Your task to perform on an android device: see sites visited before in the chrome app Image 0: 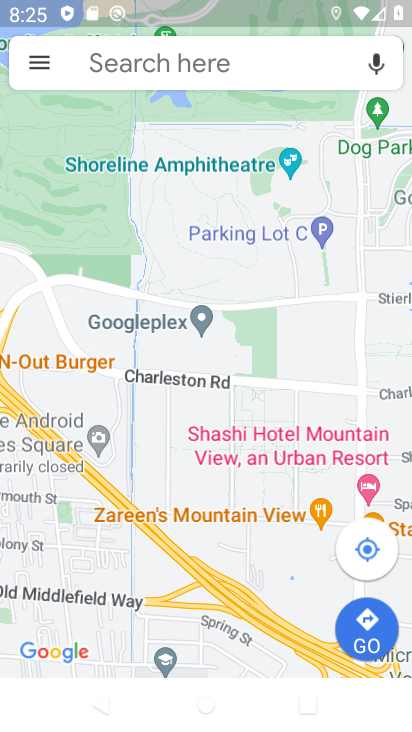
Step 0: press home button
Your task to perform on an android device: see sites visited before in the chrome app Image 1: 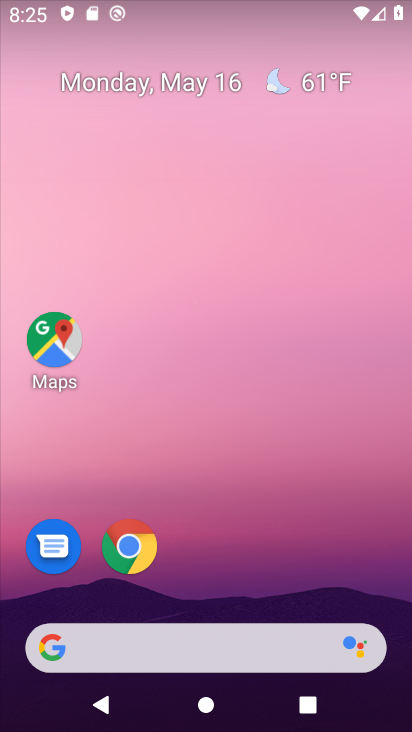
Step 1: click (147, 549)
Your task to perform on an android device: see sites visited before in the chrome app Image 2: 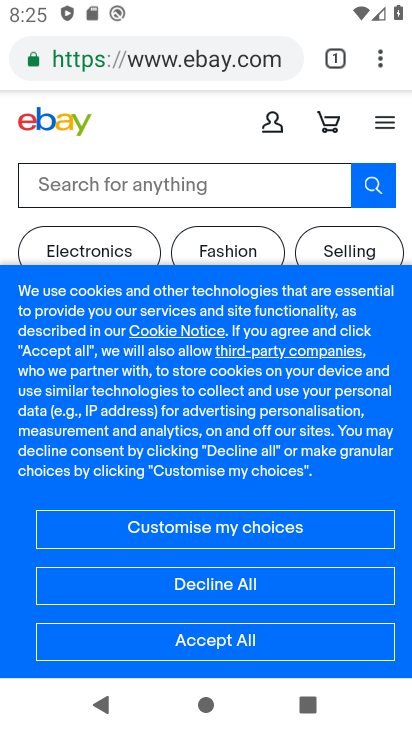
Step 2: click (387, 59)
Your task to perform on an android device: see sites visited before in the chrome app Image 3: 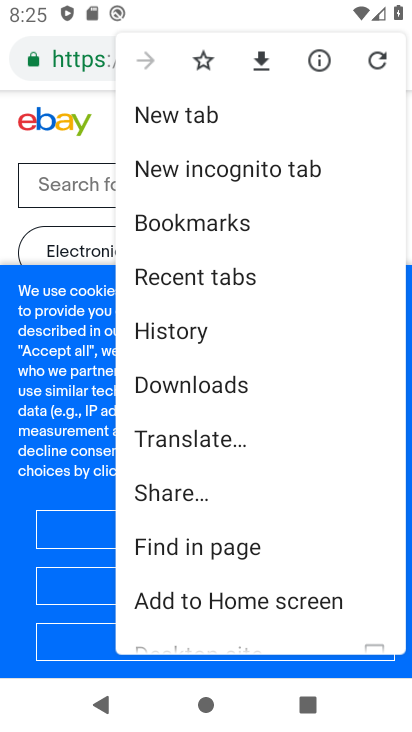
Step 3: click (151, 328)
Your task to perform on an android device: see sites visited before in the chrome app Image 4: 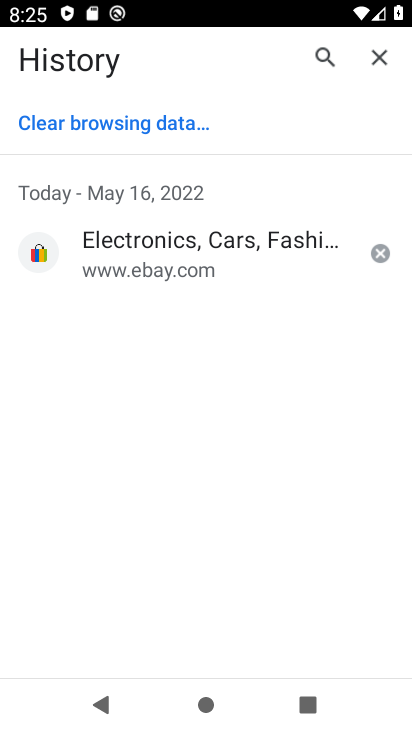
Step 4: task complete